Your task to perform on an android device: Open Google Chrome and open the bookmarks view Image 0: 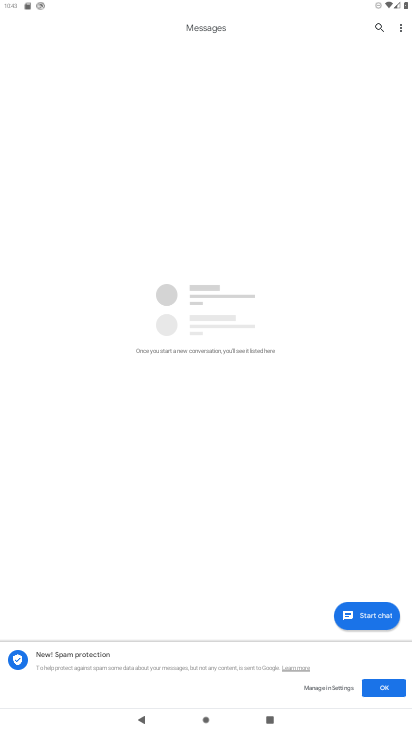
Step 0: press home button
Your task to perform on an android device: Open Google Chrome and open the bookmarks view Image 1: 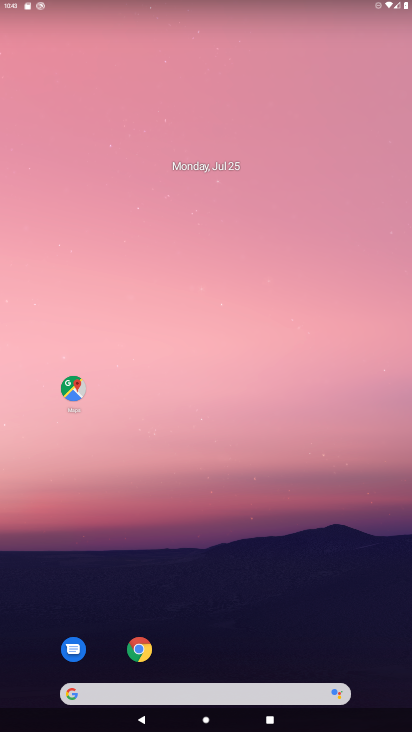
Step 1: click (141, 650)
Your task to perform on an android device: Open Google Chrome and open the bookmarks view Image 2: 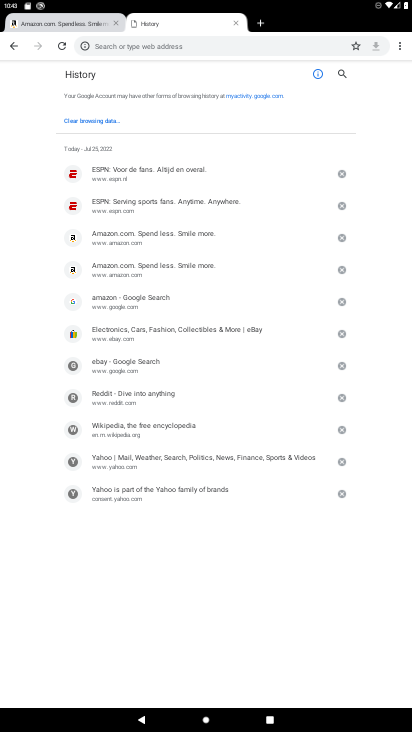
Step 2: click (399, 49)
Your task to perform on an android device: Open Google Chrome and open the bookmarks view Image 3: 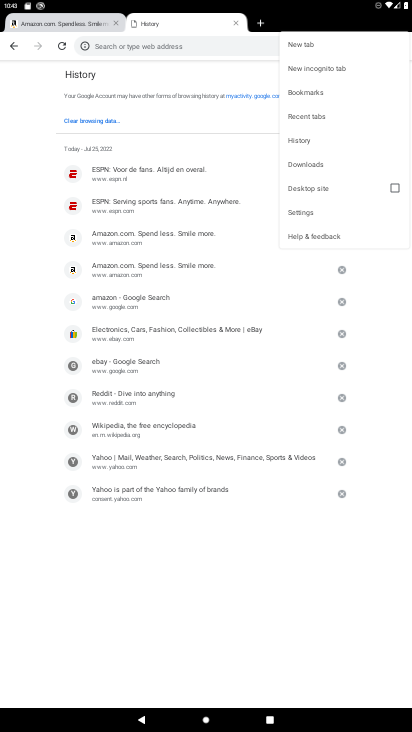
Step 3: click (299, 92)
Your task to perform on an android device: Open Google Chrome and open the bookmarks view Image 4: 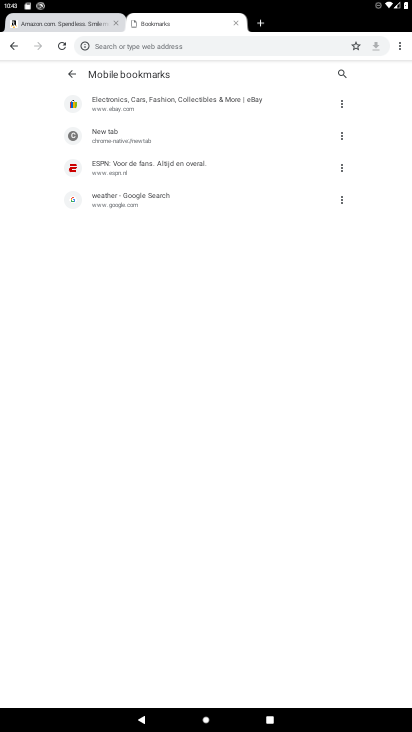
Step 4: task complete